Your task to perform on an android device: choose inbox layout in the gmail app Image 0: 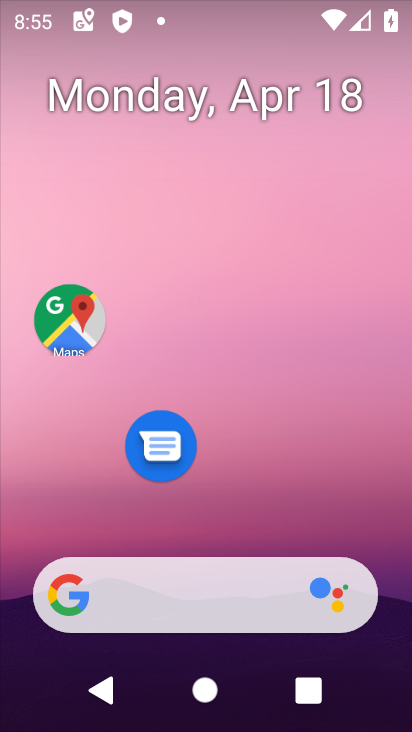
Step 0: press home button
Your task to perform on an android device: choose inbox layout in the gmail app Image 1: 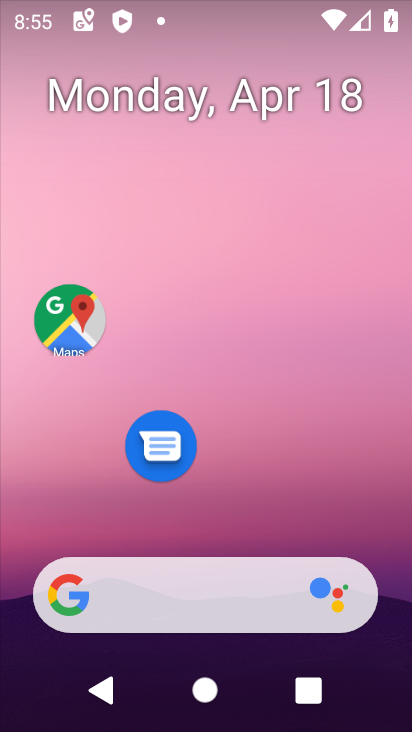
Step 1: drag from (212, 536) to (283, 34)
Your task to perform on an android device: choose inbox layout in the gmail app Image 2: 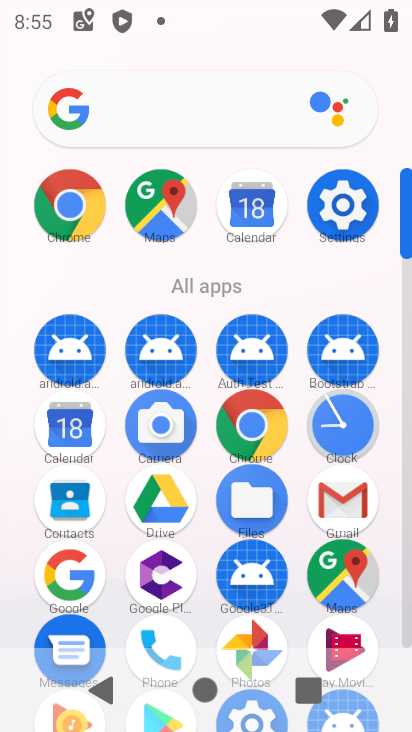
Step 2: click (341, 490)
Your task to perform on an android device: choose inbox layout in the gmail app Image 3: 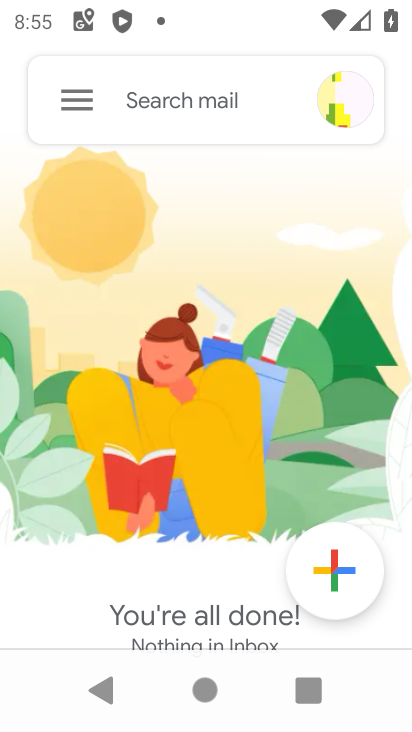
Step 3: click (73, 97)
Your task to perform on an android device: choose inbox layout in the gmail app Image 4: 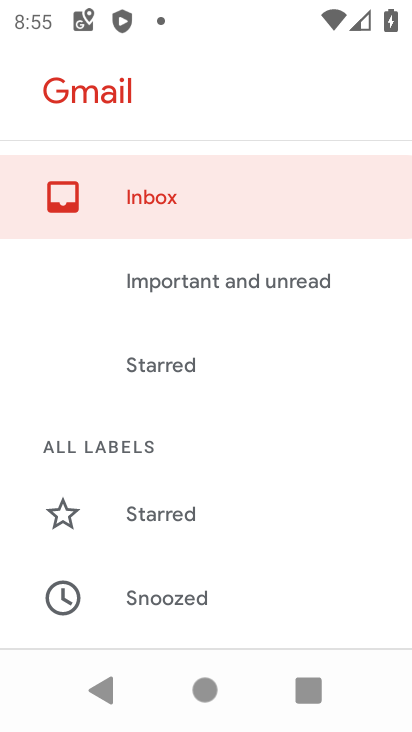
Step 4: drag from (185, 549) to (220, 115)
Your task to perform on an android device: choose inbox layout in the gmail app Image 5: 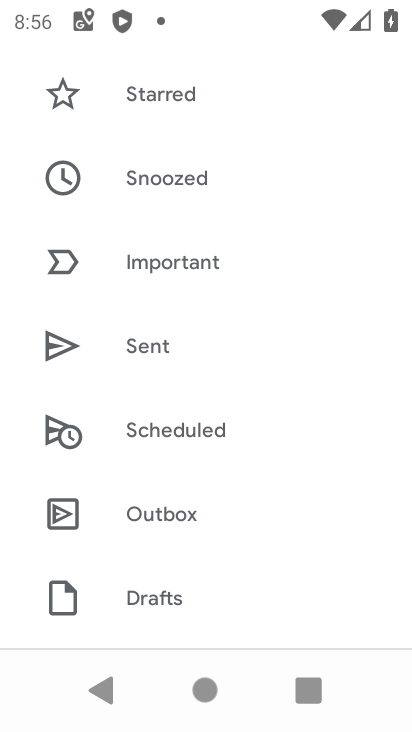
Step 5: drag from (172, 545) to (212, 174)
Your task to perform on an android device: choose inbox layout in the gmail app Image 6: 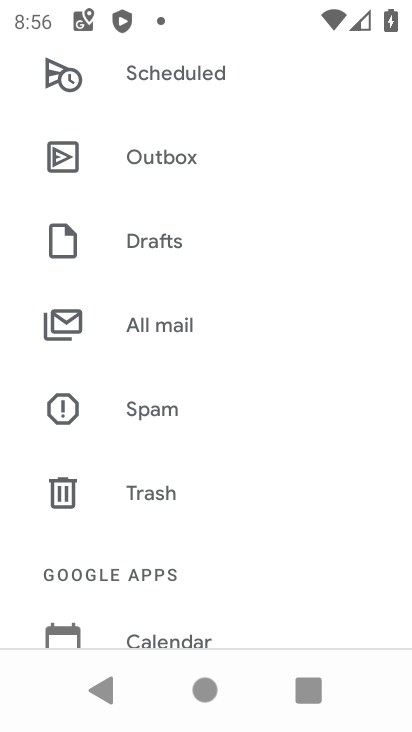
Step 6: drag from (199, 549) to (245, 103)
Your task to perform on an android device: choose inbox layout in the gmail app Image 7: 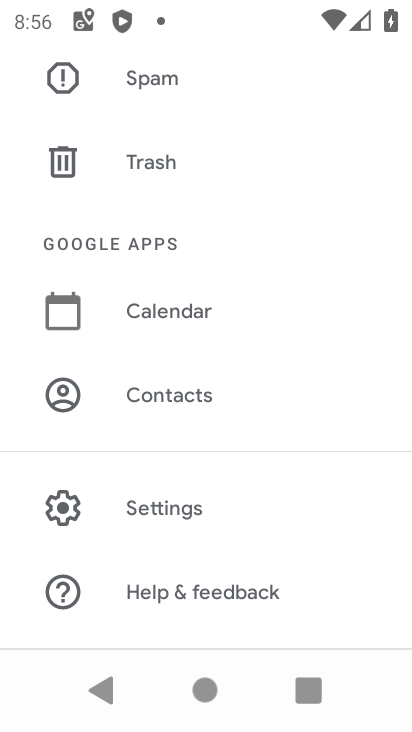
Step 7: click (202, 501)
Your task to perform on an android device: choose inbox layout in the gmail app Image 8: 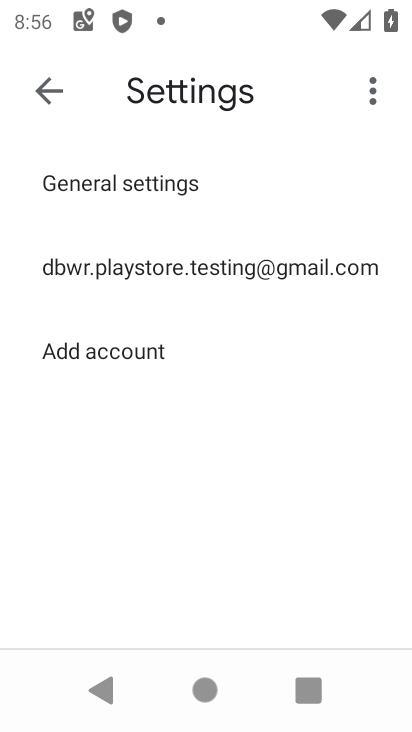
Step 8: click (213, 273)
Your task to perform on an android device: choose inbox layout in the gmail app Image 9: 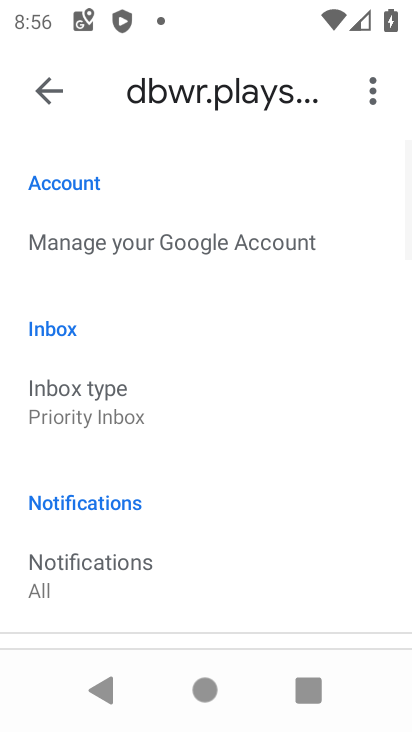
Step 9: click (138, 398)
Your task to perform on an android device: choose inbox layout in the gmail app Image 10: 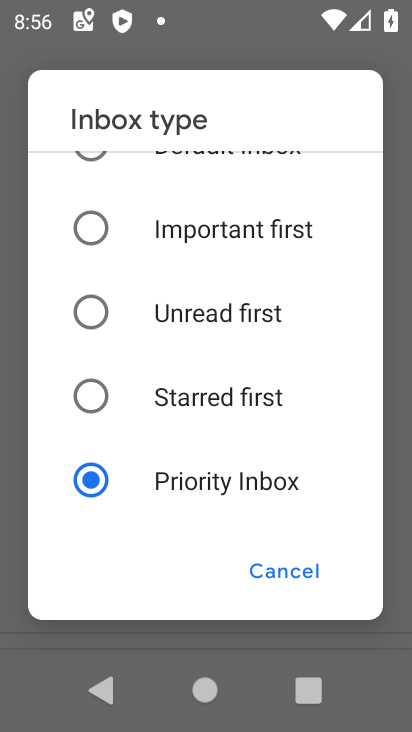
Step 10: drag from (103, 229) to (105, 444)
Your task to perform on an android device: choose inbox layout in the gmail app Image 11: 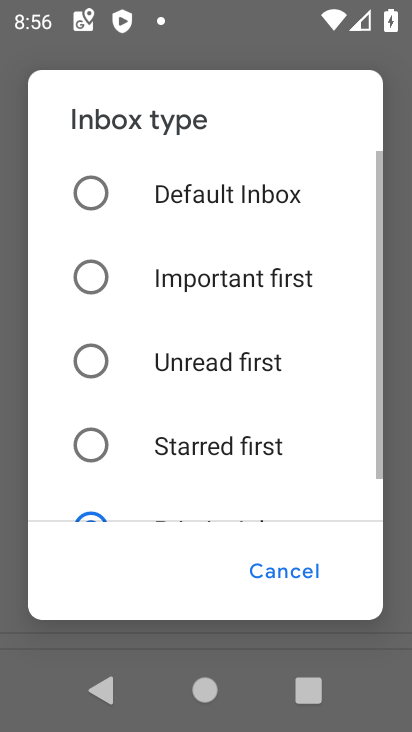
Step 11: click (84, 196)
Your task to perform on an android device: choose inbox layout in the gmail app Image 12: 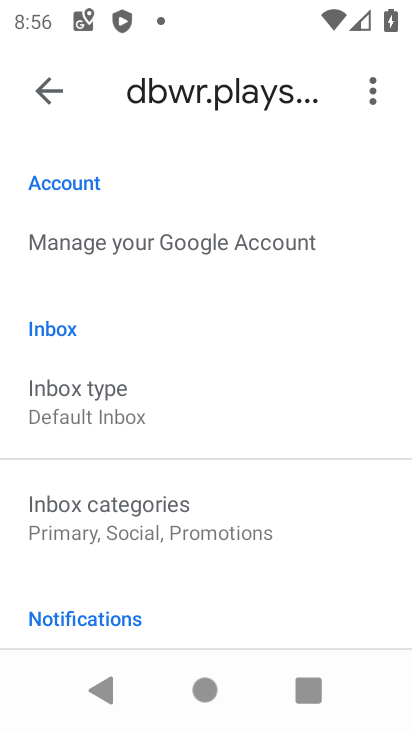
Step 12: task complete